Your task to perform on an android device: check battery use Image 0: 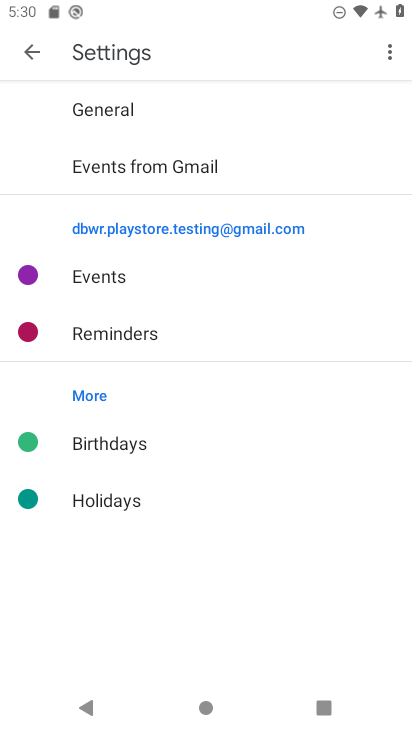
Step 0: click (22, 51)
Your task to perform on an android device: check battery use Image 1: 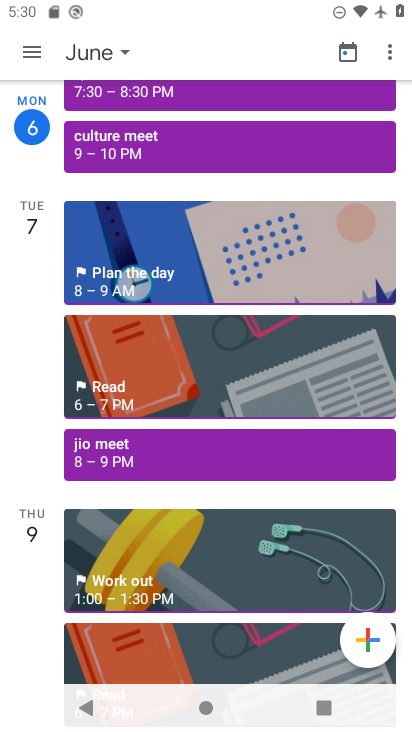
Step 1: press back button
Your task to perform on an android device: check battery use Image 2: 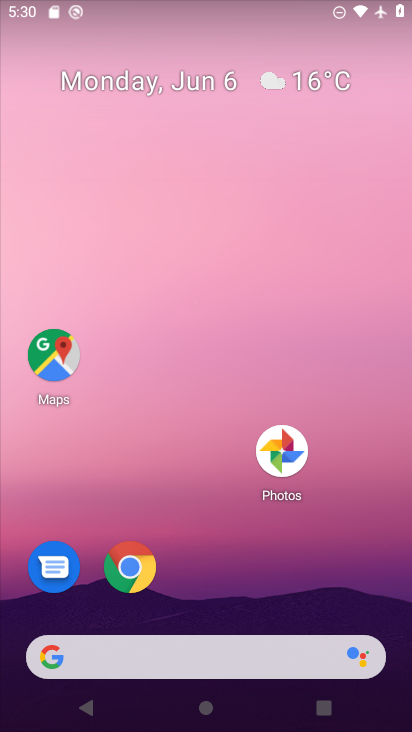
Step 2: drag from (255, 618) to (171, 120)
Your task to perform on an android device: check battery use Image 3: 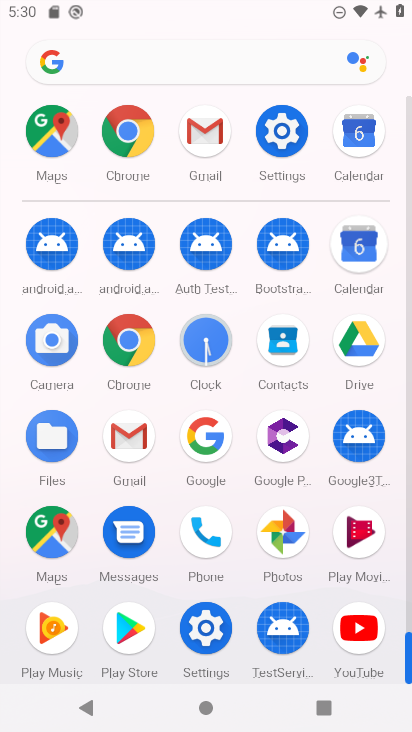
Step 3: click (297, 129)
Your task to perform on an android device: check battery use Image 4: 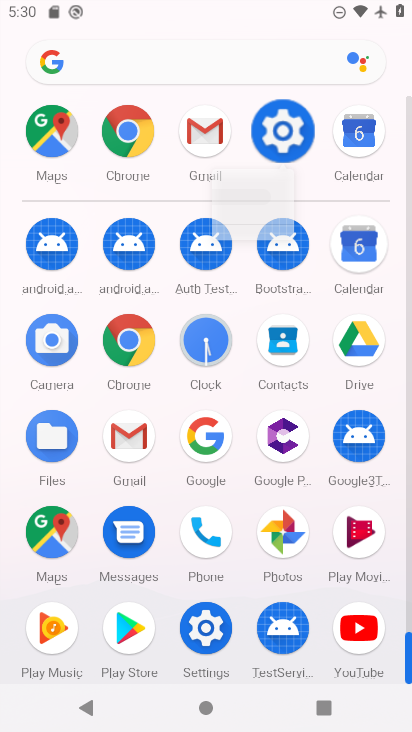
Step 4: click (295, 131)
Your task to perform on an android device: check battery use Image 5: 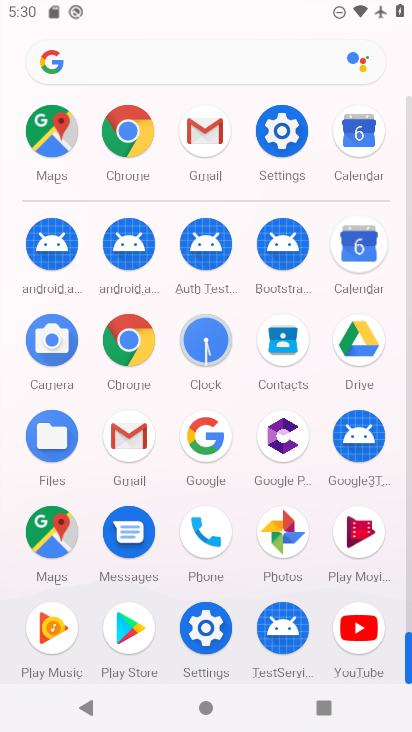
Step 5: click (293, 133)
Your task to perform on an android device: check battery use Image 6: 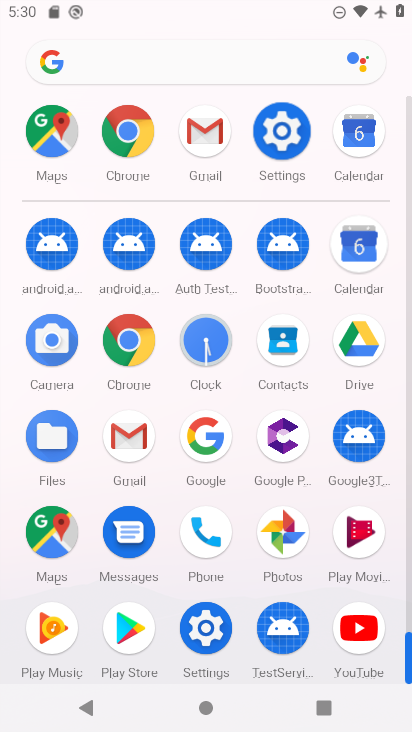
Step 6: click (294, 134)
Your task to perform on an android device: check battery use Image 7: 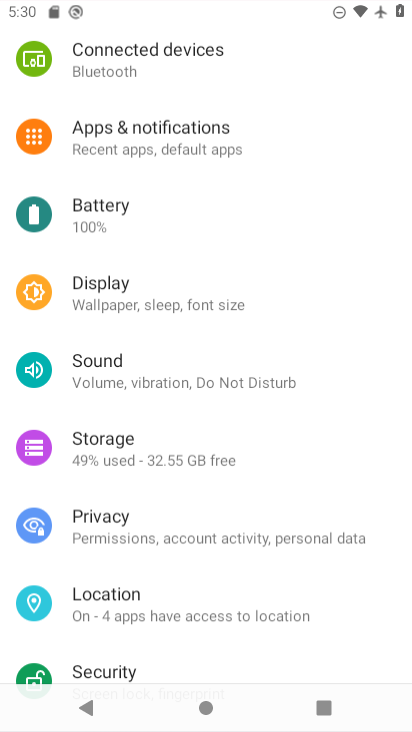
Step 7: click (294, 134)
Your task to perform on an android device: check battery use Image 8: 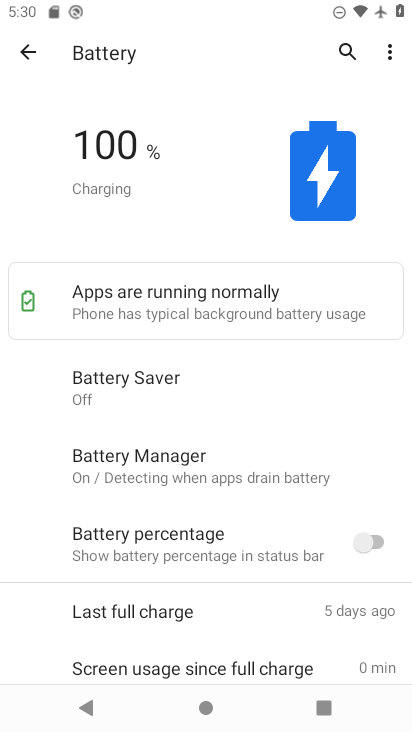
Step 8: task complete